Your task to perform on an android device: Open wifi settings Image 0: 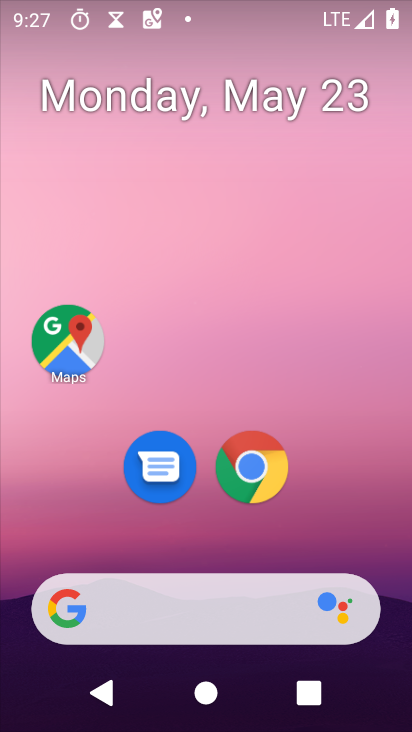
Step 0: drag from (334, 521) to (273, 81)
Your task to perform on an android device: Open wifi settings Image 1: 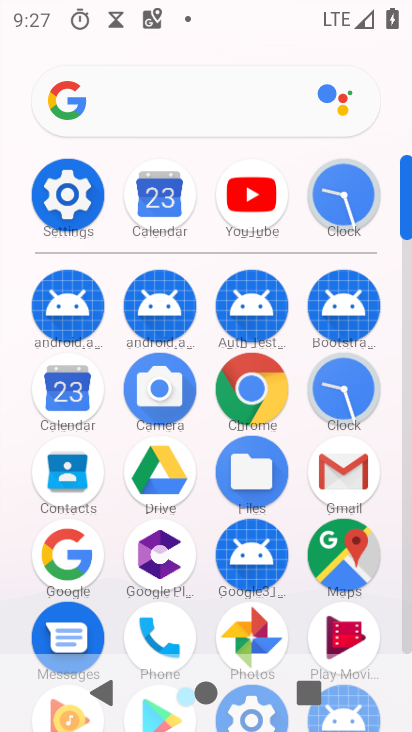
Step 1: click (64, 186)
Your task to perform on an android device: Open wifi settings Image 2: 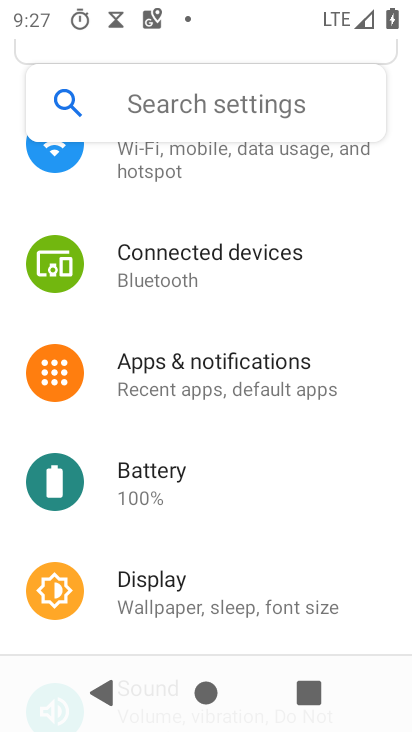
Step 2: click (214, 181)
Your task to perform on an android device: Open wifi settings Image 3: 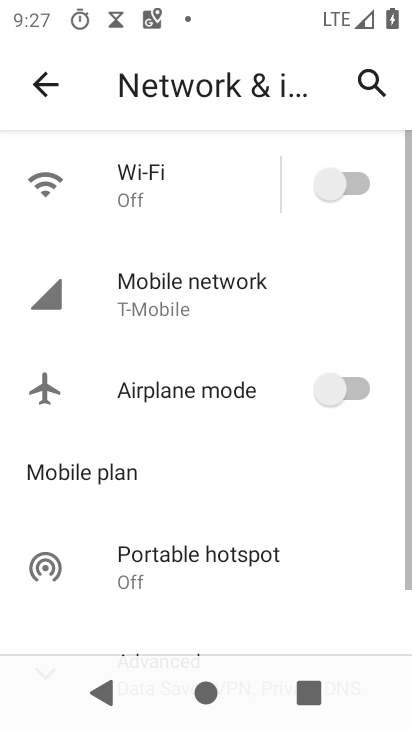
Step 3: click (155, 176)
Your task to perform on an android device: Open wifi settings Image 4: 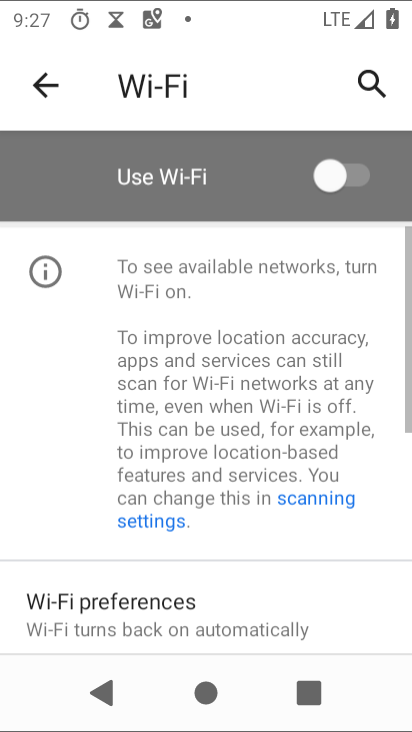
Step 4: task complete